Your task to perform on an android device: toggle translation in the chrome app Image 0: 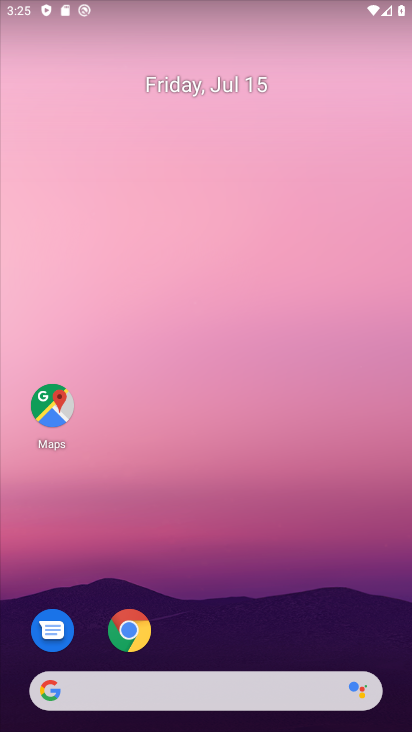
Step 0: drag from (233, 651) to (175, 66)
Your task to perform on an android device: toggle translation in the chrome app Image 1: 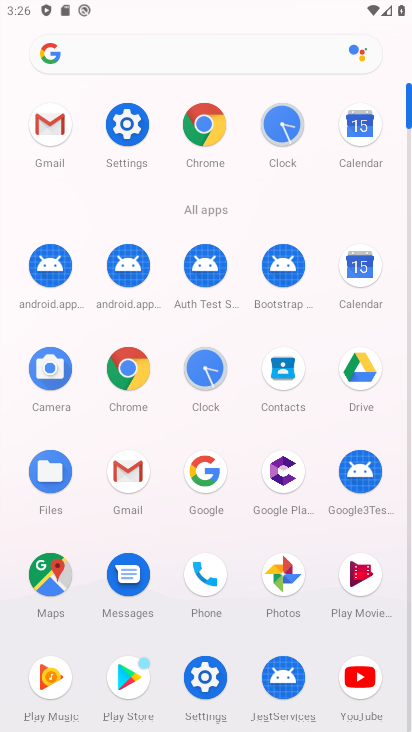
Step 1: click (136, 347)
Your task to perform on an android device: toggle translation in the chrome app Image 2: 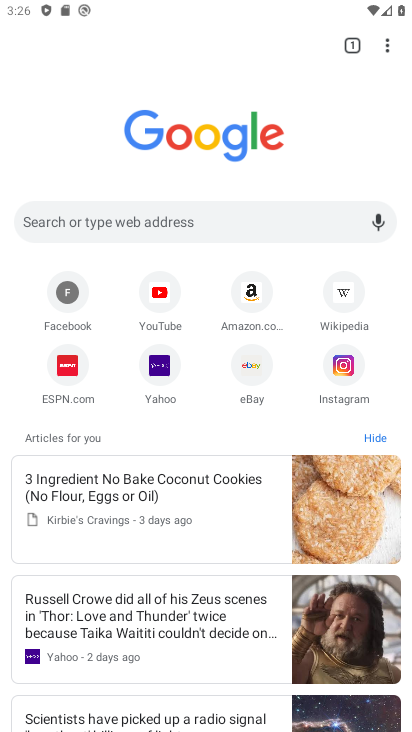
Step 2: drag from (394, 45) to (220, 388)
Your task to perform on an android device: toggle translation in the chrome app Image 3: 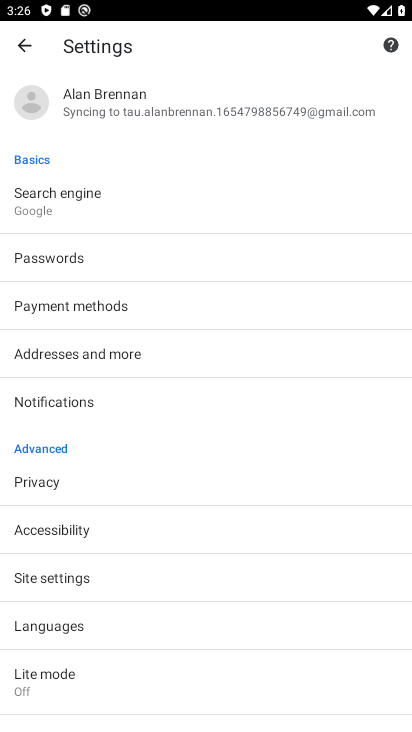
Step 3: click (85, 629)
Your task to perform on an android device: toggle translation in the chrome app Image 4: 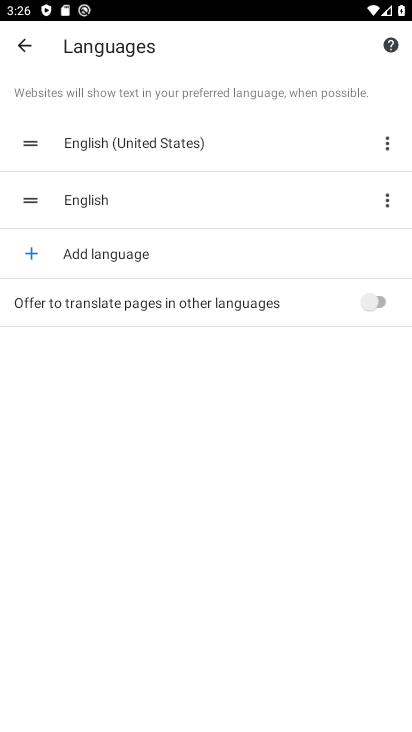
Step 4: click (376, 308)
Your task to perform on an android device: toggle translation in the chrome app Image 5: 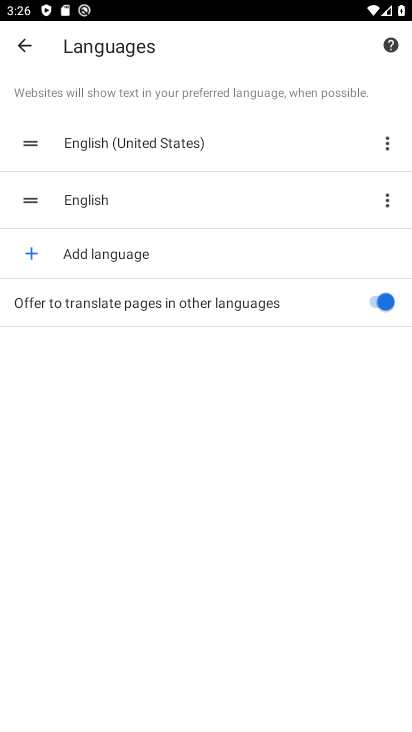
Step 5: task complete